Your task to perform on an android device: turn off data saver in the chrome app Image 0: 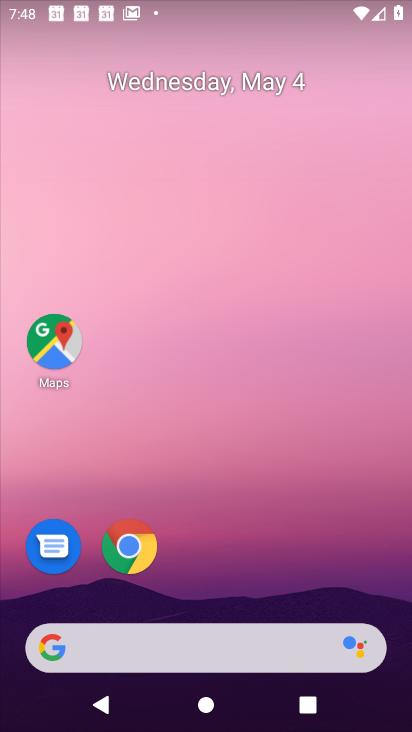
Step 0: click (133, 548)
Your task to perform on an android device: turn off data saver in the chrome app Image 1: 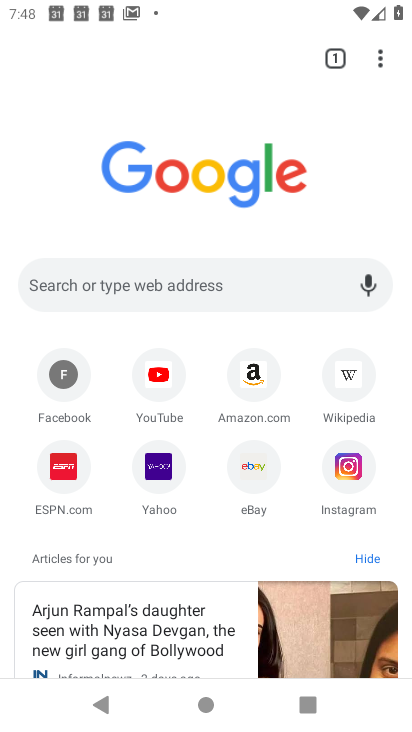
Step 1: click (386, 62)
Your task to perform on an android device: turn off data saver in the chrome app Image 2: 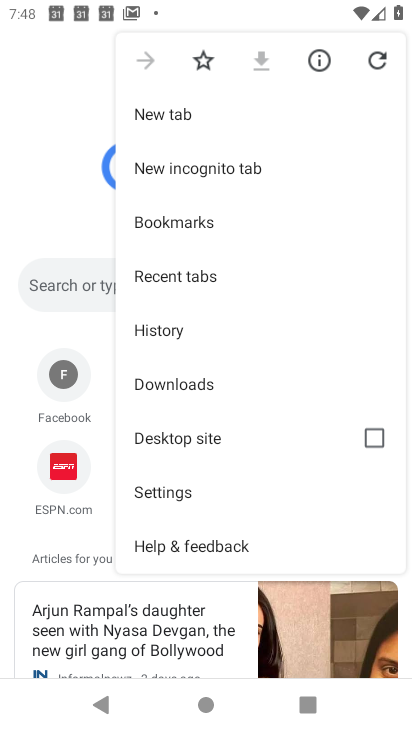
Step 2: click (170, 488)
Your task to perform on an android device: turn off data saver in the chrome app Image 3: 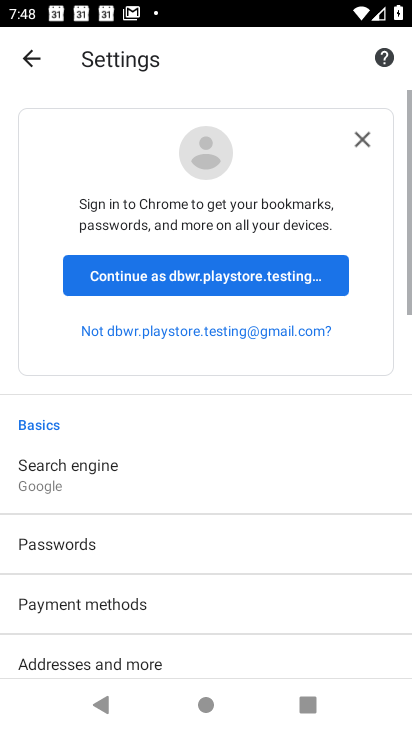
Step 3: drag from (160, 532) to (165, 118)
Your task to perform on an android device: turn off data saver in the chrome app Image 4: 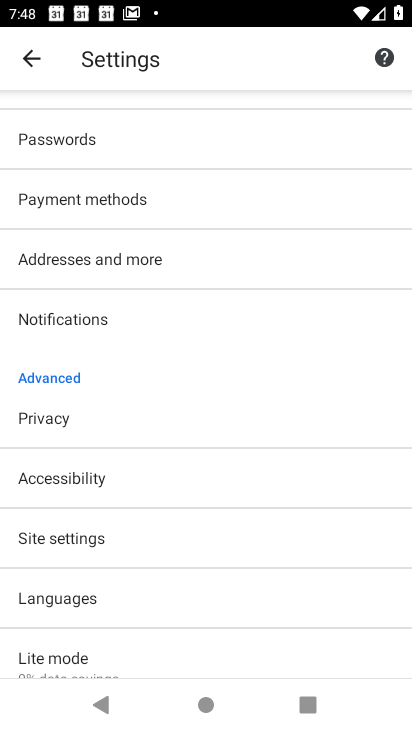
Step 4: drag from (136, 636) to (142, 306)
Your task to perform on an android device: turn off data saver in the chrome app Image 5: 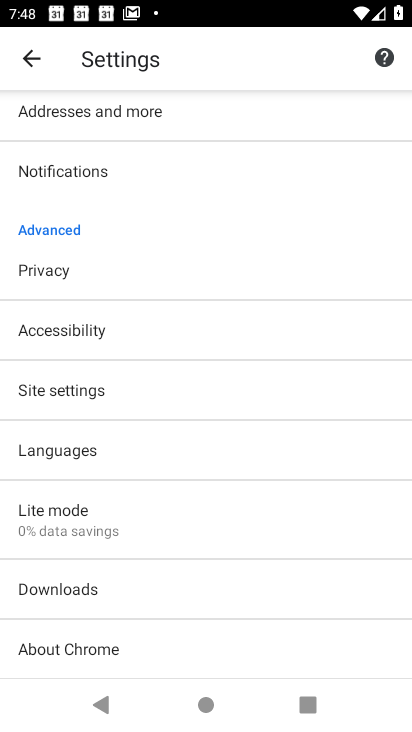
Step 5: click (85, 519)
Your task to perform on an android device: turn off data saver in the chrome app Image 6: 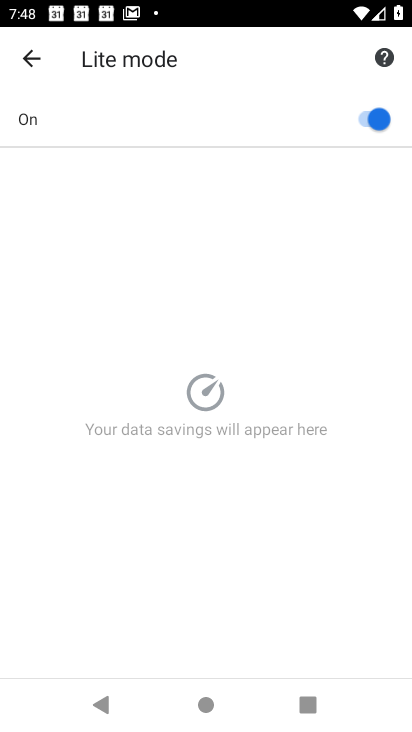
Step 6: click (364, 117)
Your task to perform on an android device: turn off data saver in the chrome app Image 7: 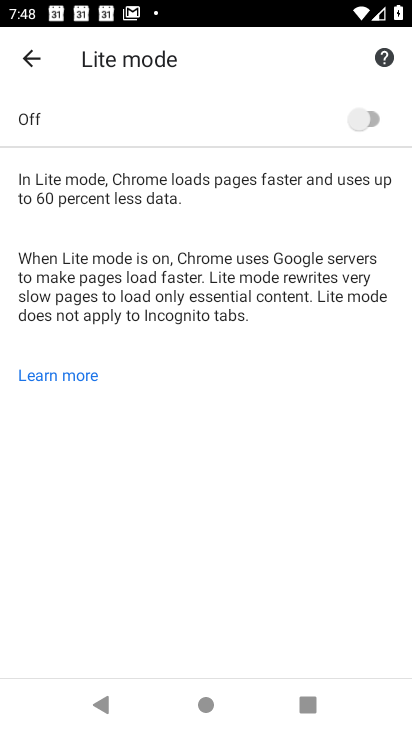
Step 7: task complete